Your task to perform on an android device: turn on javascript in the chrome app Image 0: 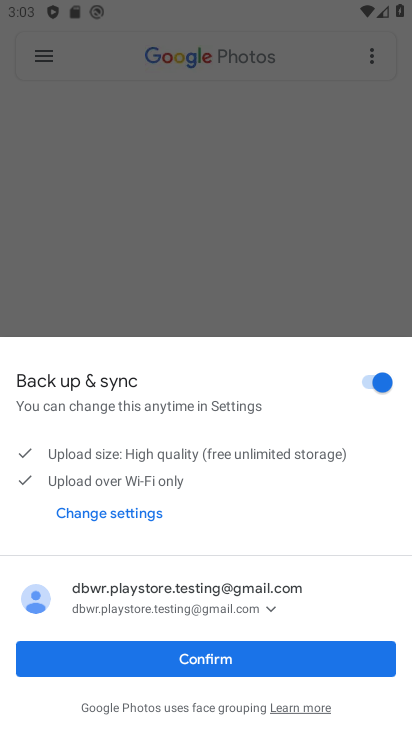
Step 0: press home button
Your task to perform on an android device: turn on javascript in the chrome app Image 1: 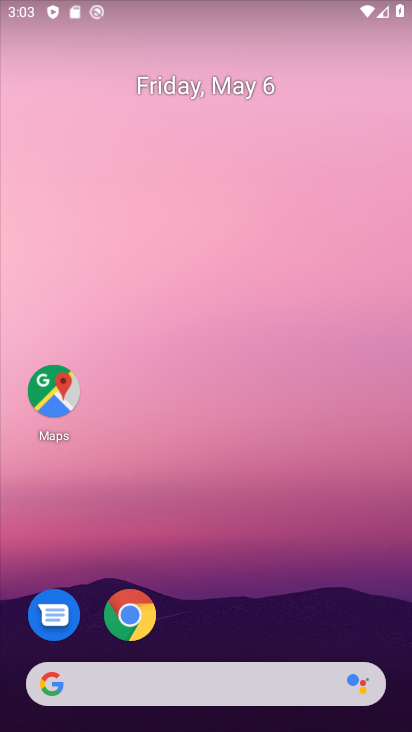
Step 1: click (136, 620)
Your task to perform on an android device: turn on javascript in the chrome app Image 2: 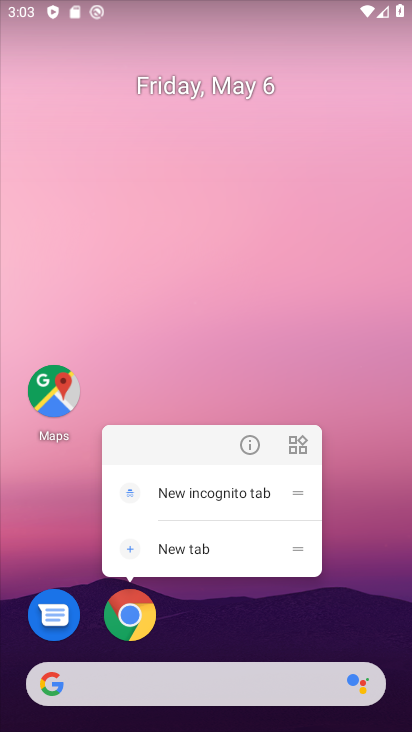
Step 2: click (136, 620)
Your task to perform on an android device: turn on javascript in the chrome app Image 3: 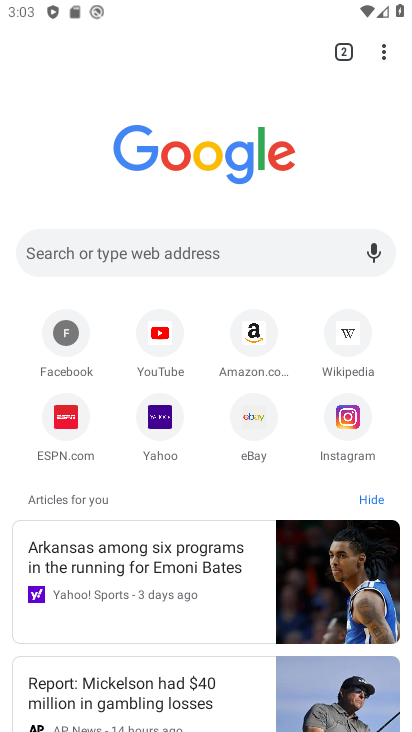
Step 3: drag from (381, 46) to (192, 439)
Your task to perform on an android device: turn on javascript in the chrome app Image 4: 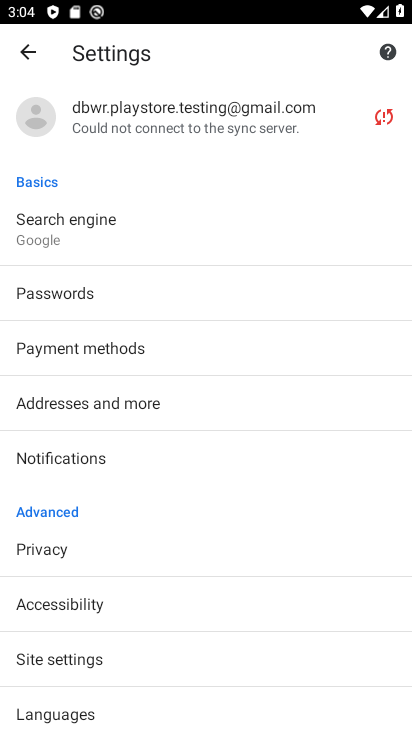
Step 4: click (72, 656)
Your task to perform on an android device: turn on javascript in the chrome app Image 5: 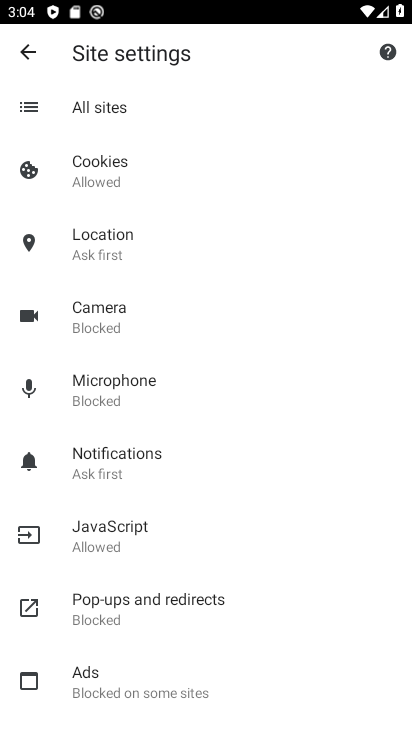
Step 5: click (97, 534)
Your task to perform on an android device: turn on javascript in the chrome app Image 6: 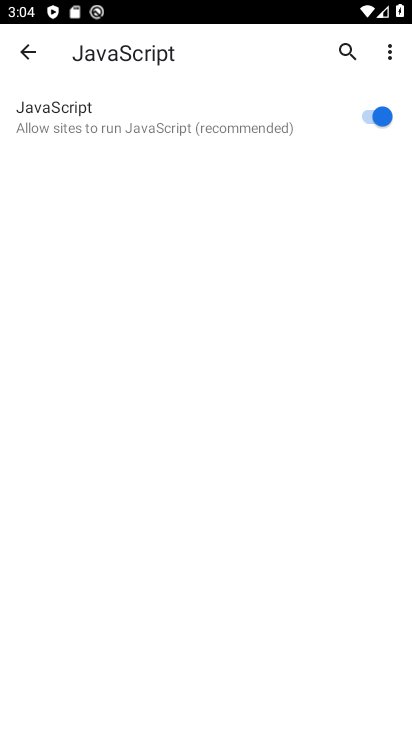
Step 6: task complete